Your task to perform on an android device: all mails in gmail Image 0: 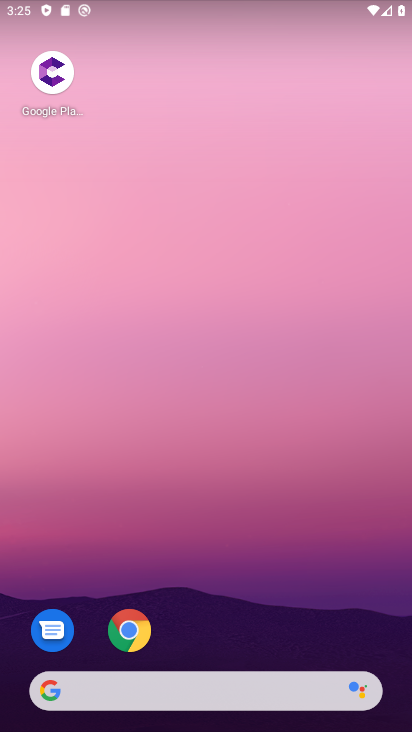
Step 0: drag from (228, 723) to (237, 177)
Your task to perform on an android device: all mails in gmail Image 1: 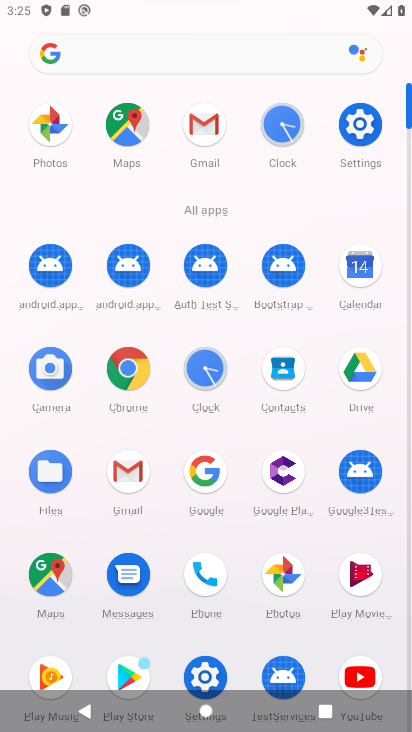
Step 1: click (207, 123)
Your task to perform on an android device: all mails in gmail Image 2: 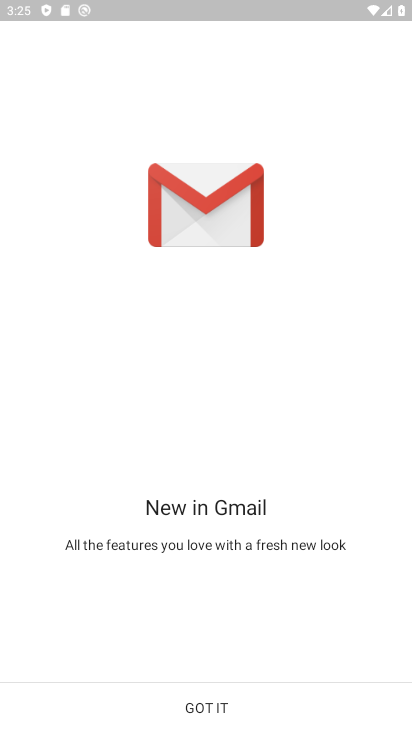
Step 2: click (216, 709)
Your task to perform on an android device: all mails in gmail Image 3: 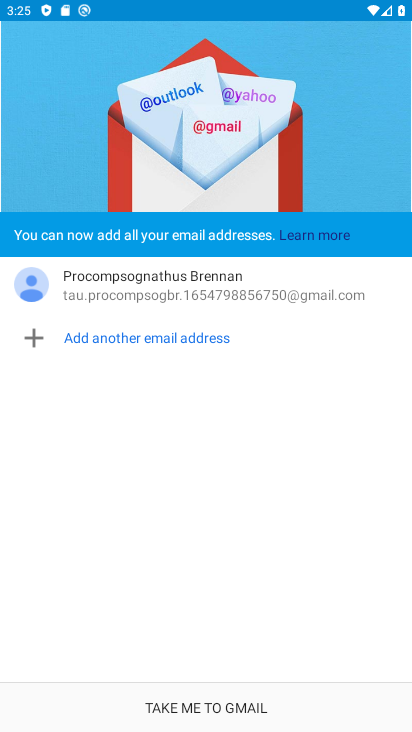
Step 3: click (187, 707)
Your task to perform on an android device: all mails in gmail Image 4: 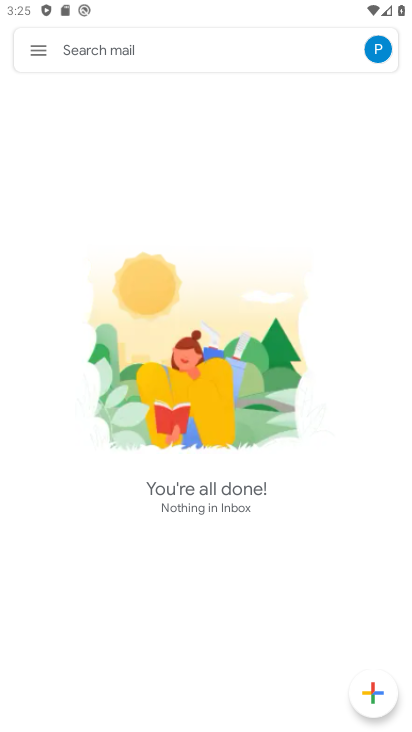
Step 4: click (30, 49)
Your task to perform on an android device: all mails in gmail Image 5: 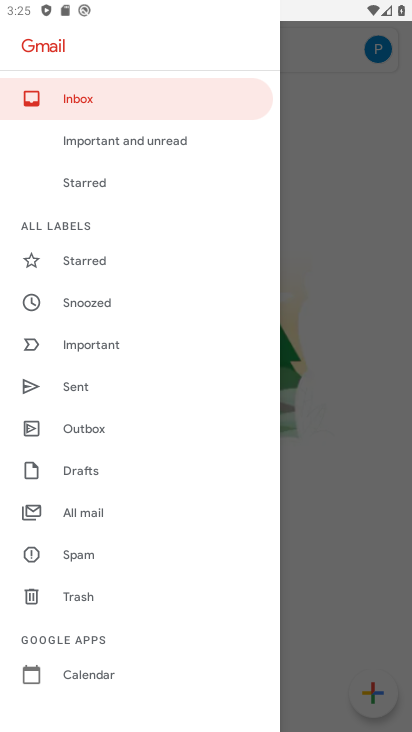
Step 5: click (89, 512)
Your task to perform on an android device: all mails in gmail Image 6: 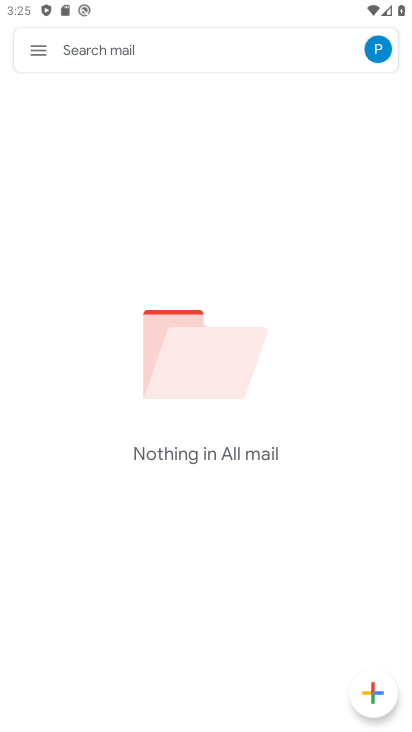
Step 6: task complete